Your task to perform on an android device: change notification settings in the gmail app Image 0: 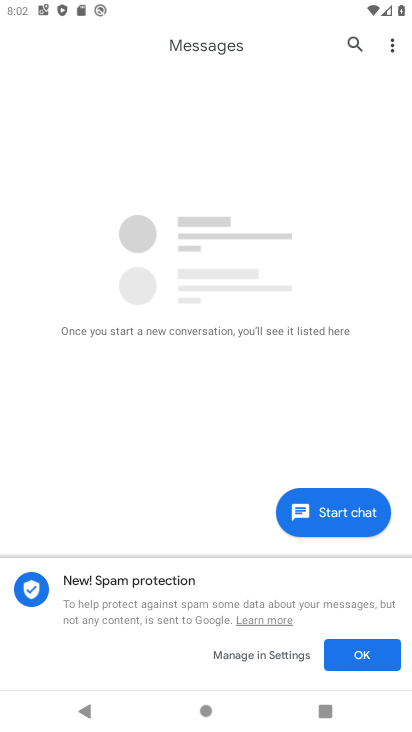
Step 0: press home button
Your task to perform on an android device: change notification settings in the gmail app Image 1: 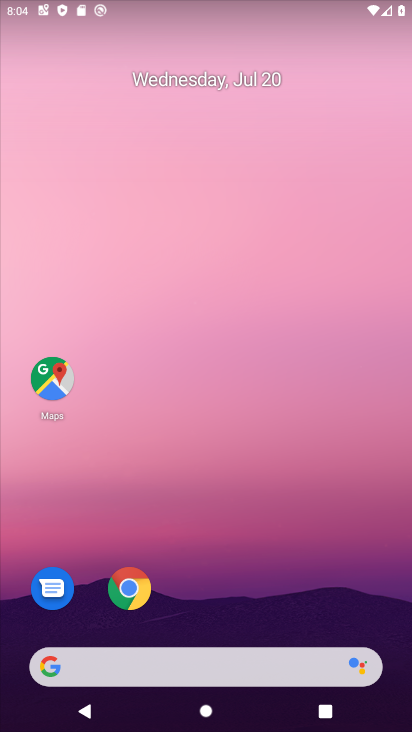
Step 1: drag from (283, 677) to (298, 185)
Your task to perform on an android device: change notification settings in the gmail app Image 2: 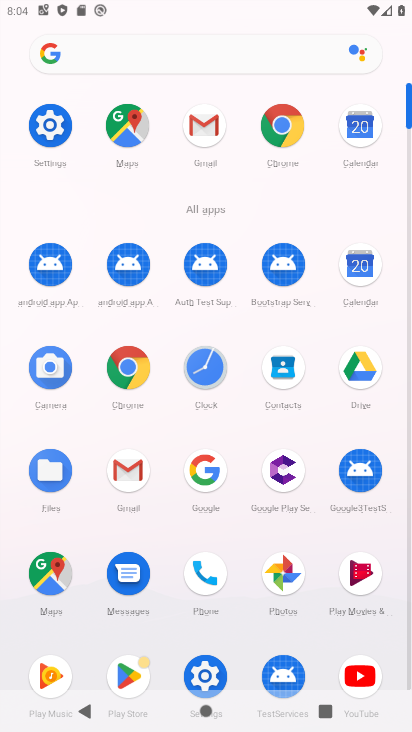
Step 2: click (197, 121)
Your task to perform on an android device: change notification settings in the gmail app Image 3: 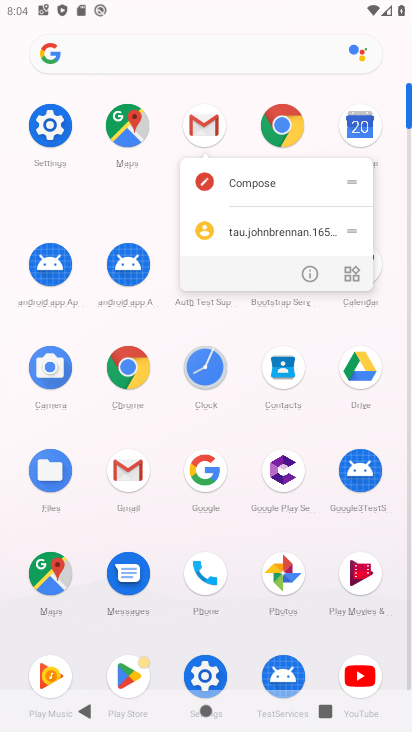
Step 3: click (310, 280)
Your task to perform on an android device: change notification settings in the gmail app Image 4: 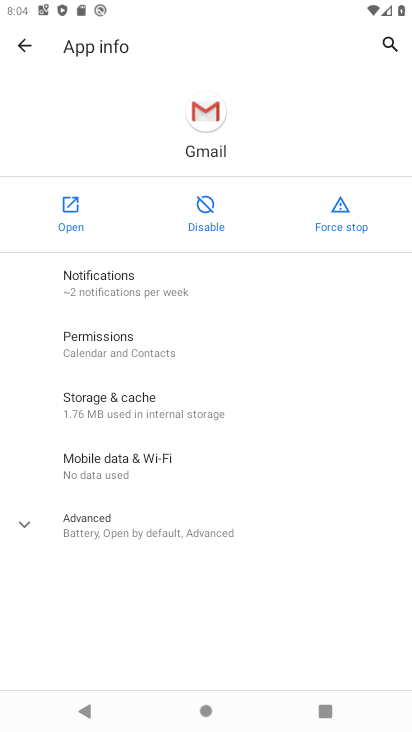
Step 4: click (202, 260)
Your task to perform on an android device: change notification settings in the gmail app Image 5: 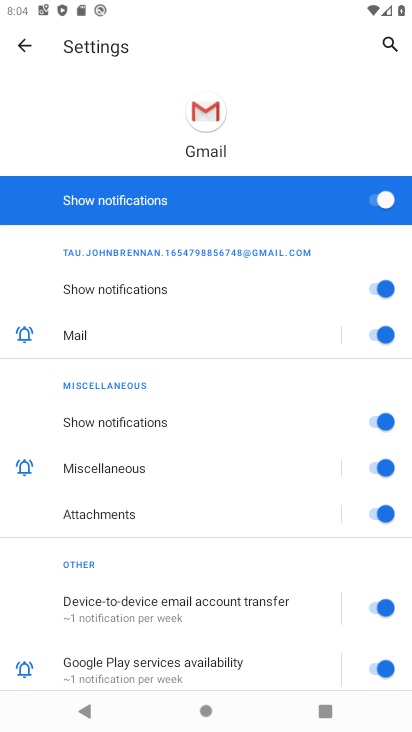
Step 5: click (380, 201)
Your task to perform on an android device: change notification settings in the gmail app Image 6: 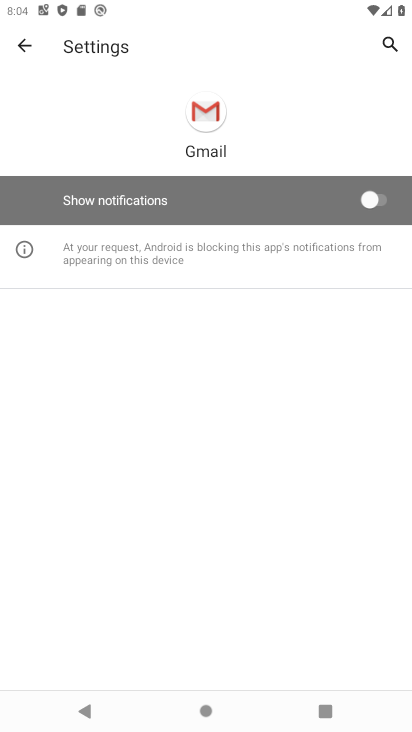
Step 6: task complete